Your task to perform on an android device: What's on my calendar tomorrow? Image 0: 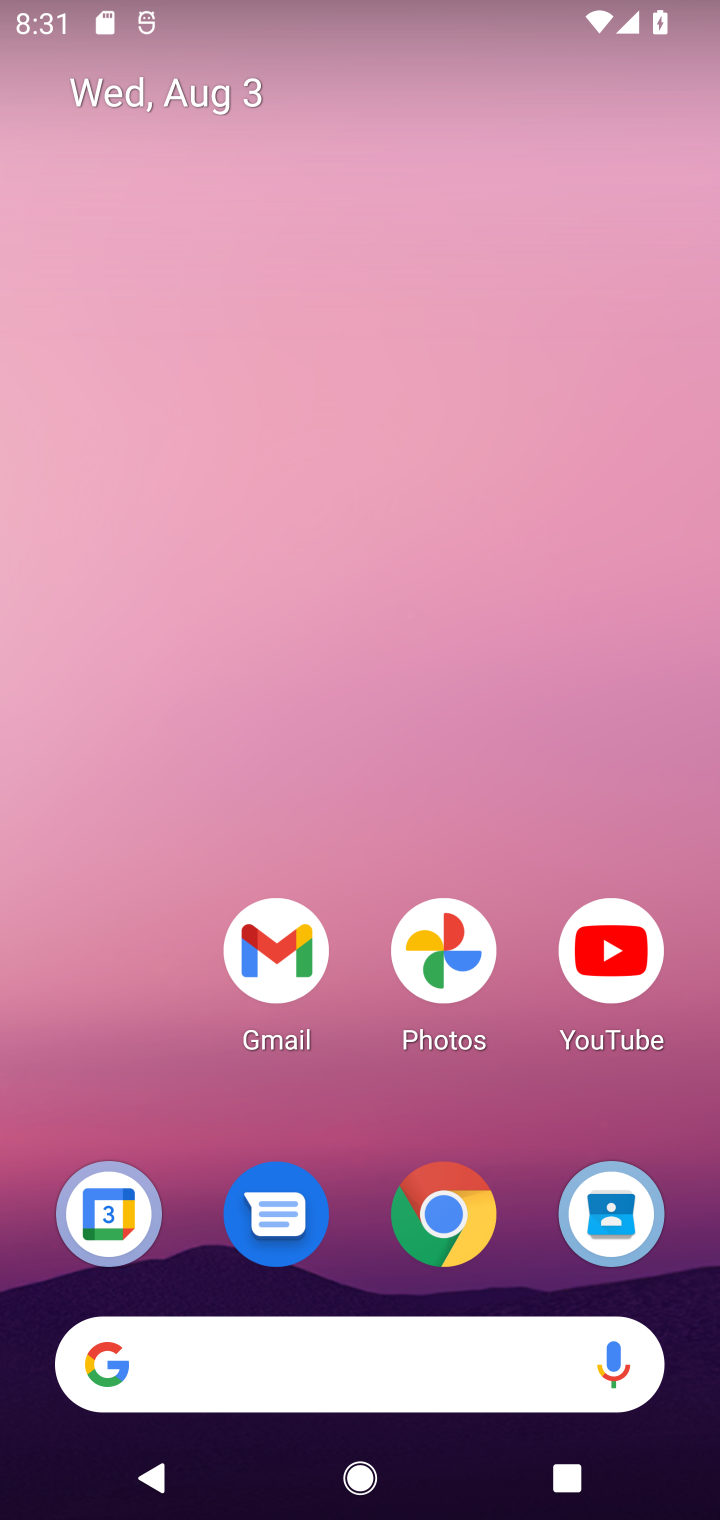
Step 0: click (106, 1214)
Your task to perform on an android device: What's on my calendar tomorrow? Image 1: 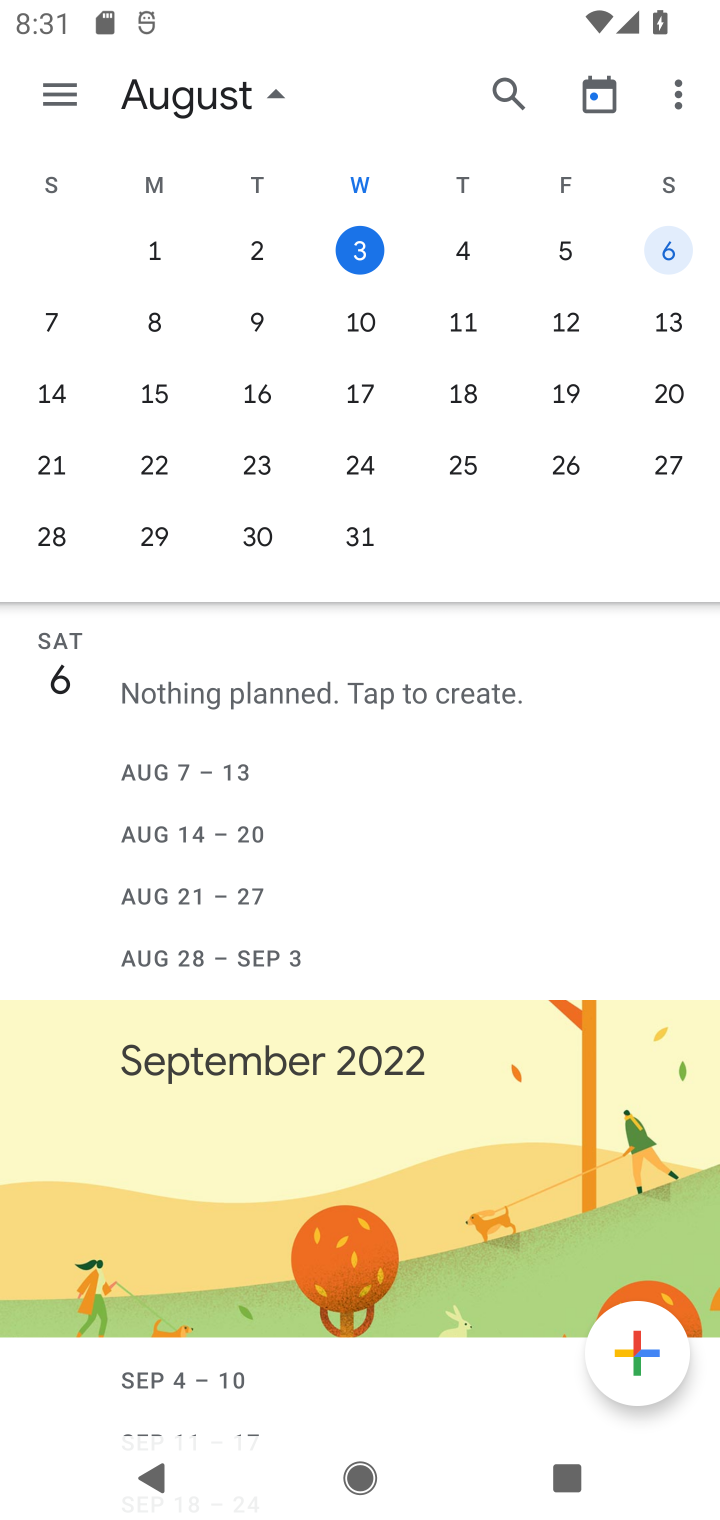
Step 1: click (466, 242)
Your task to perform on an android device: What's on my calendar tomorrow? Image 2: 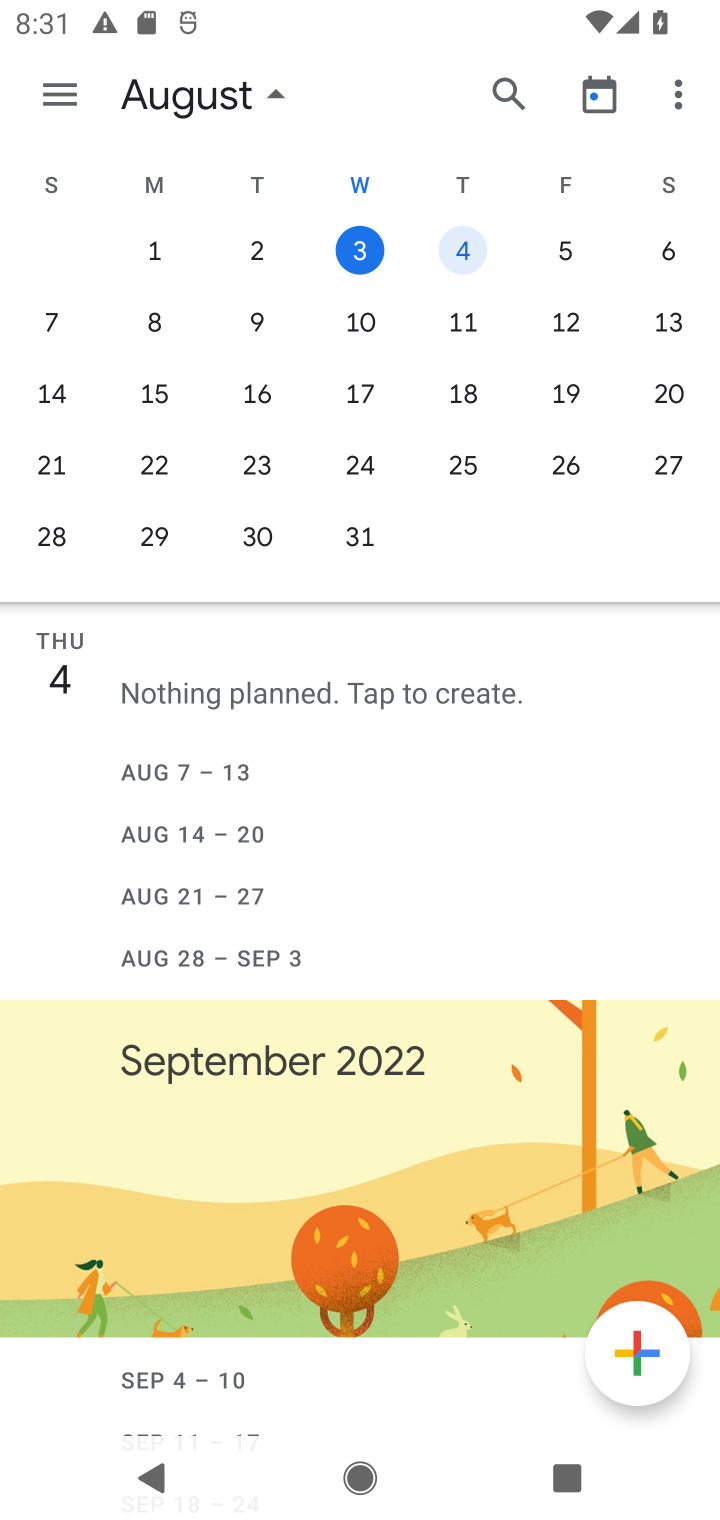
Step 2: task complete